Your task to perform on an android device: turn off priority inbox in the gmail app Image 0: 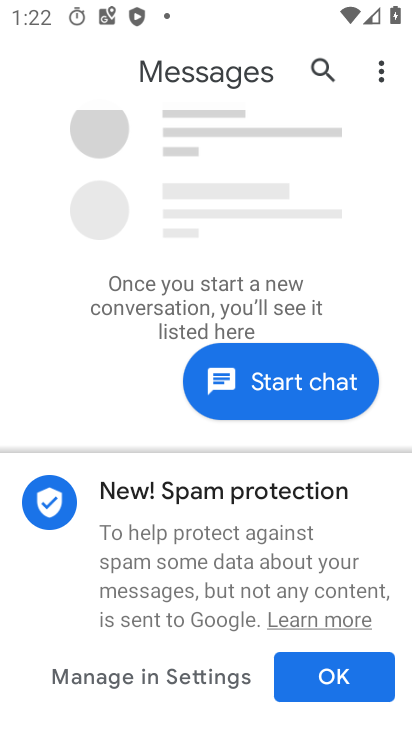
Step 0: press home button
Your task to perform on an android device: turn off priority inbox in the gmail app Image 1: 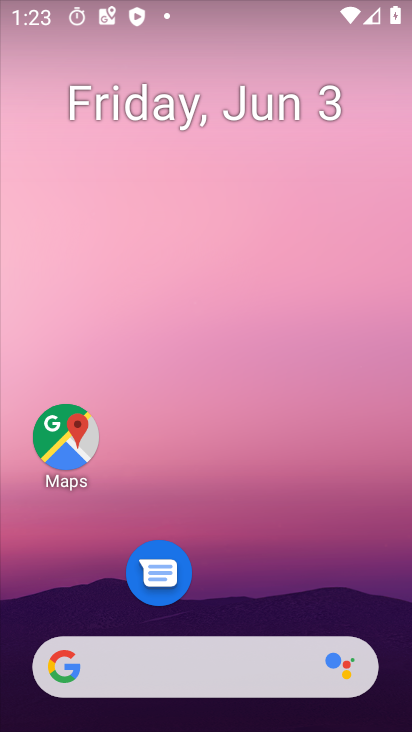
Step 1: drag from (269, 593) to (291, 61)
Your task to perform on an android device: turn off priority inbox in the gmail app Image 2: 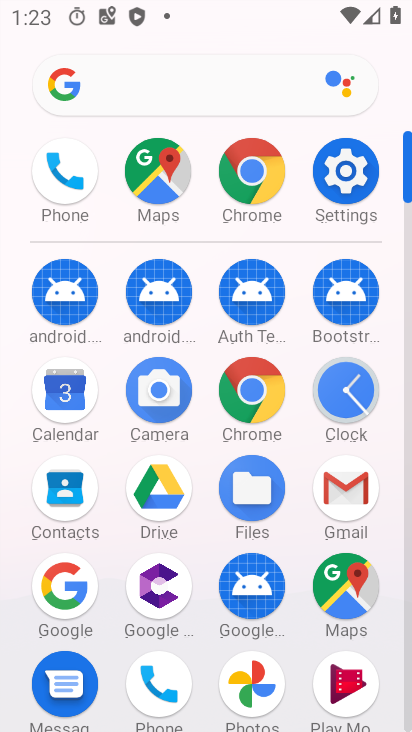
Step 2: click (329, 507)
Your task to perform on an android device: turn off priority inbox in the gmail app Image 3: 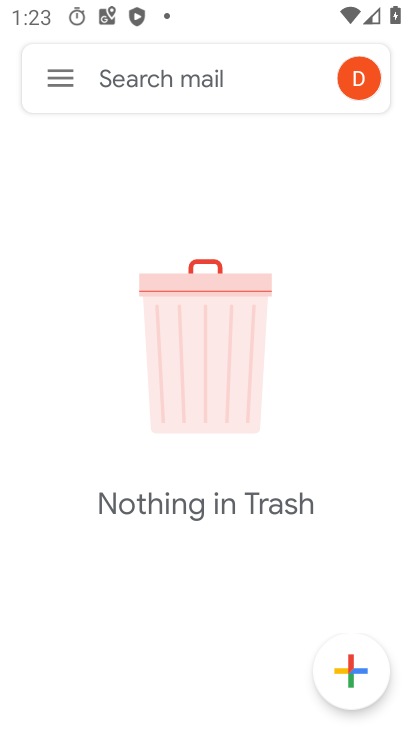
Step 3: click (59, 84)
Your task to perform on an android device: turn off priority inbox in the gmail app Image 4: 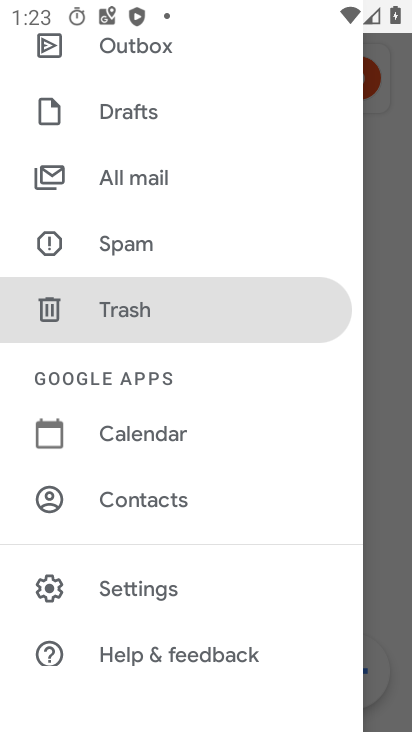
Step 4: click (152, 582)
Your task to perform on an android device: turn off priority inbox in the gmail app Image 5: 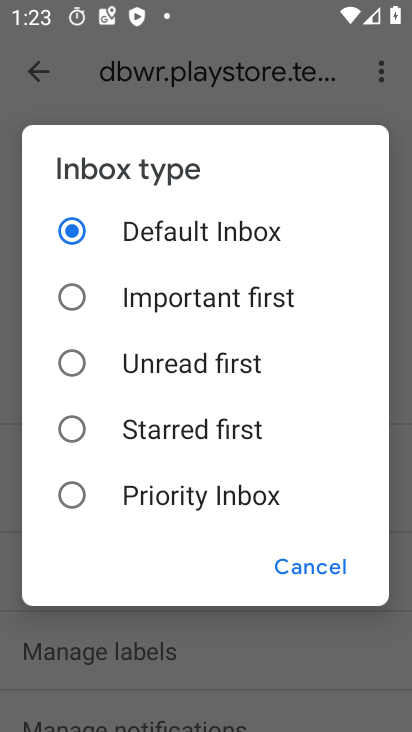
Step 5: click (224, 574)
Your task to perform on an android device: turn off priority inbox in the gmail app Image 6: 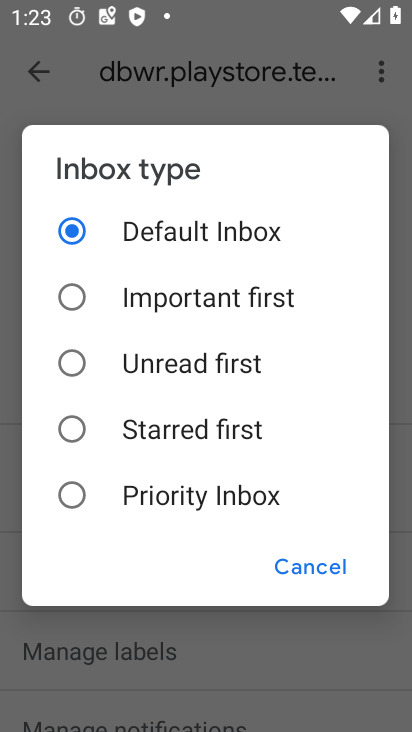
Step 6: task complete